Your task to perform on an android device: manage bookmarks in the chrome app Image 0: 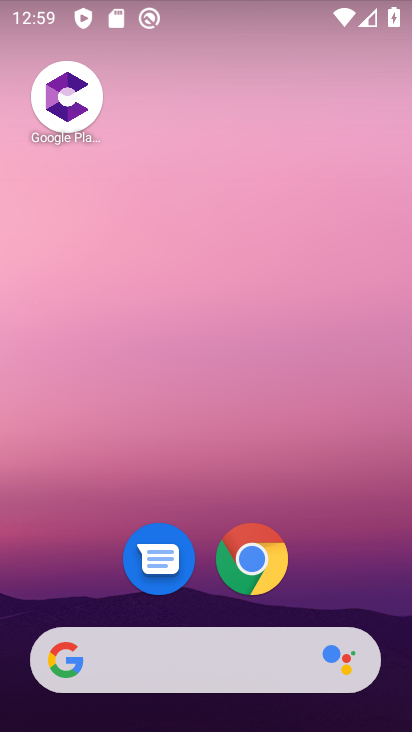
Step 0: click (258, 577)
Your task to perform on an android device: manage bookmarks in the chrome app Image 1: 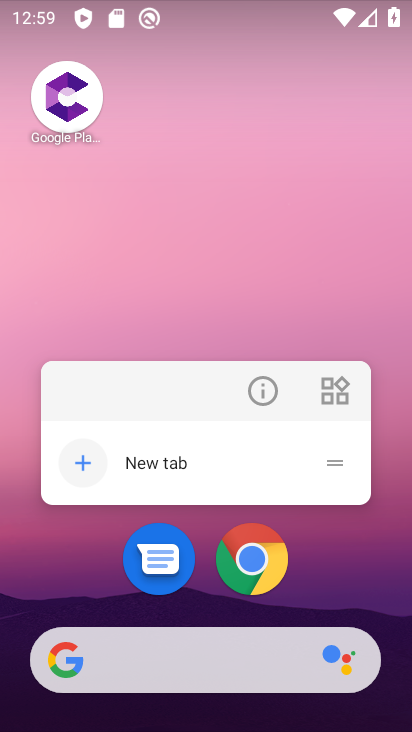
Step 1: click (259, 576)
Your task to perform on an android device: manage bookmarks in the chrome app Image 2: 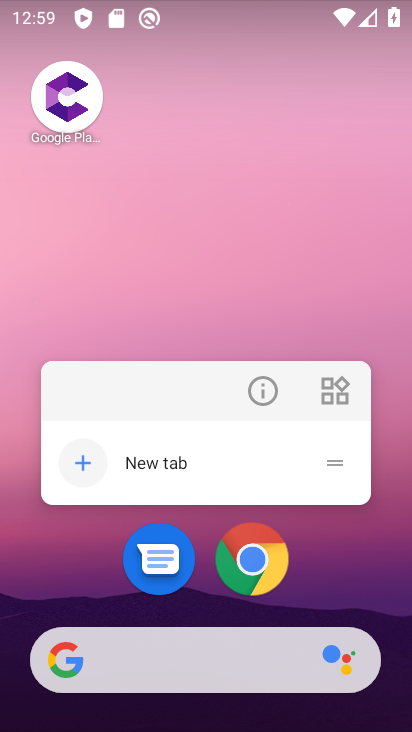
Step 2: click (256, 552)
Your task to perform on an android device: manage bookmarks in the chrome app Image 3: 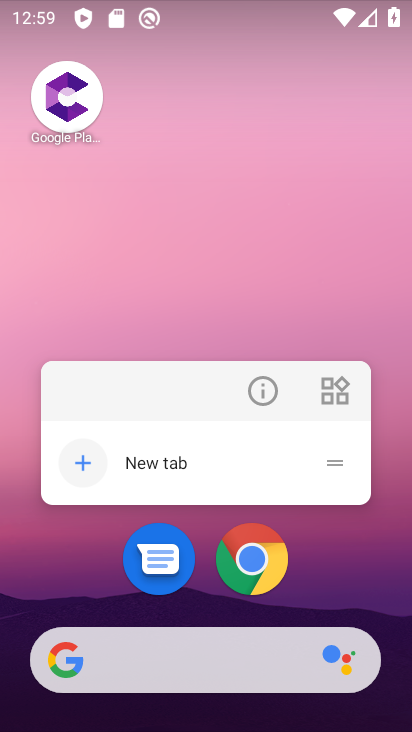
Step 3: click (256, 551)
Your task to perform on an android device: manage bookmarks in the chrome app Image 4: 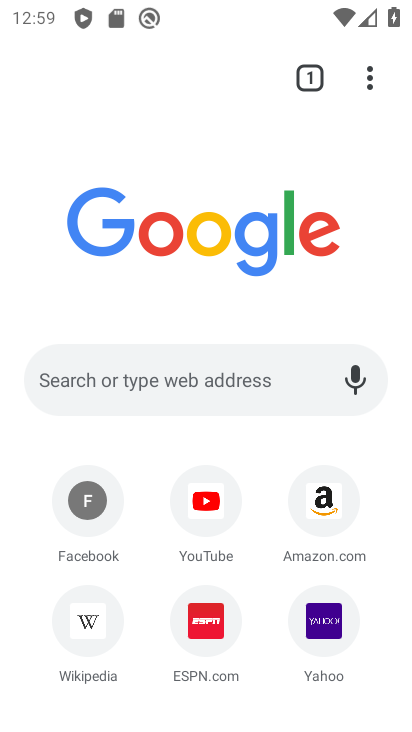
Step 4: task complete